Your task to perform on an android device: Open settings Image 0: 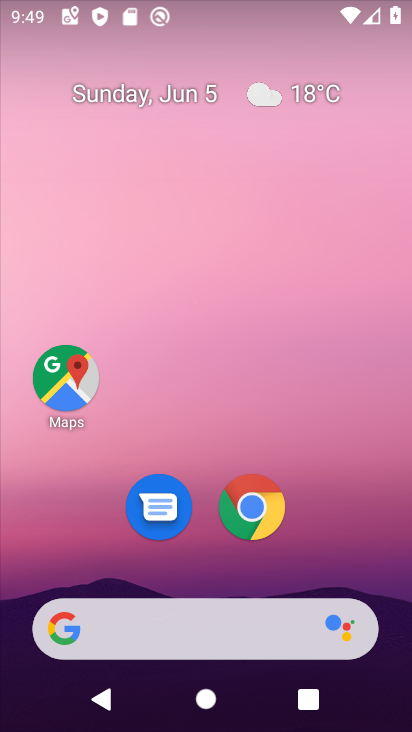
Step 0: drag from (265, 585) to (348, 24)
Your task to perform on an android device: Open settings Image 1: 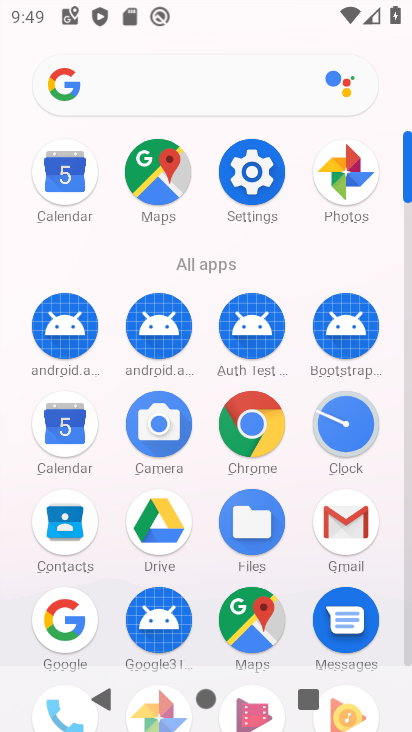
Step 1: click (267, 202)
Your task to perform on an android device: Open settings Image 2: 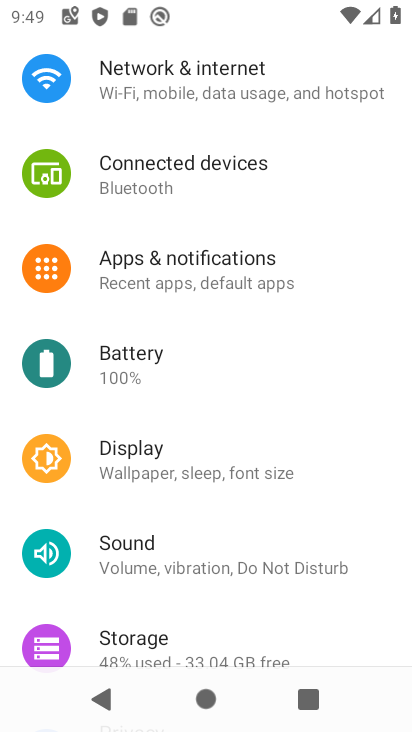
Step 2: task complete